Your task to perform on an android device: clear all cookies in the chrome app Image 0: 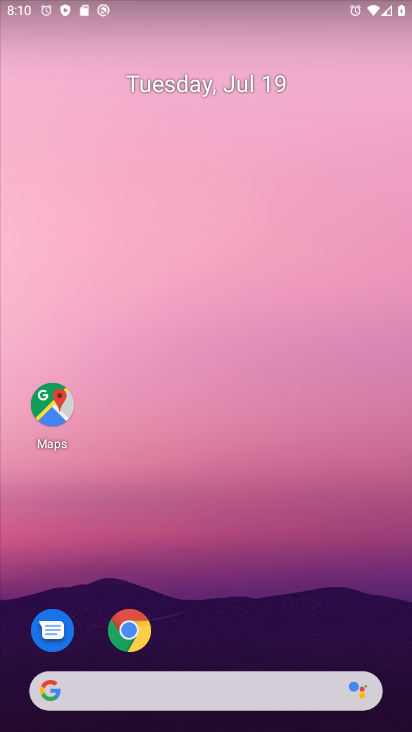
Step 0: click (131, 626)
Your task to perform on an android device: clear all cookies in the chrome app Image 1: 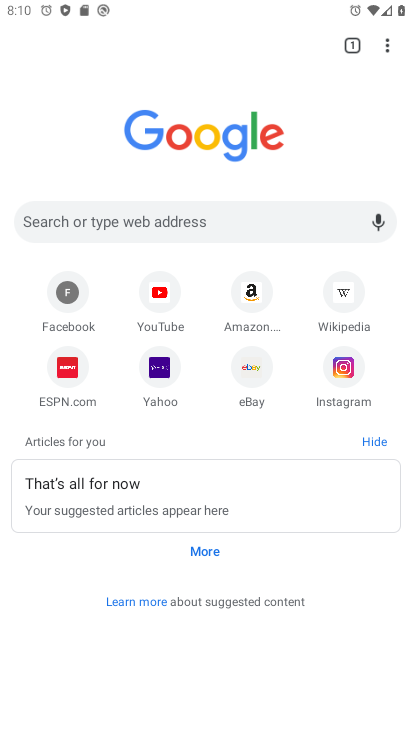
Step 1: click (386, 43)
Your task to perform on an android device: clear all cookies in the chrome app Image 2: 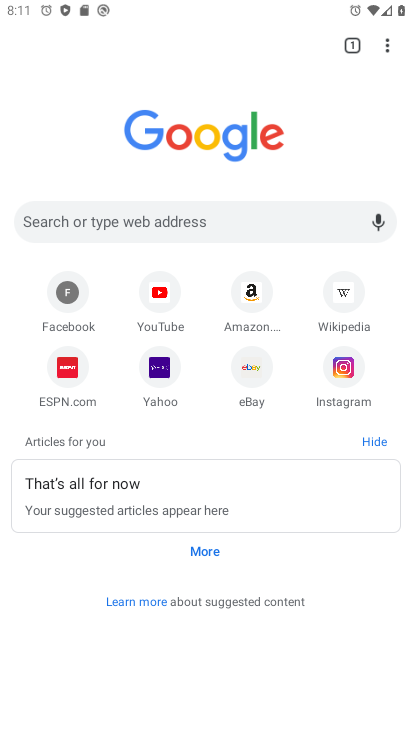
Step 2: click (387, 44)
Your task to perform on an android device: clear all cookies in the chrome app Image 3: 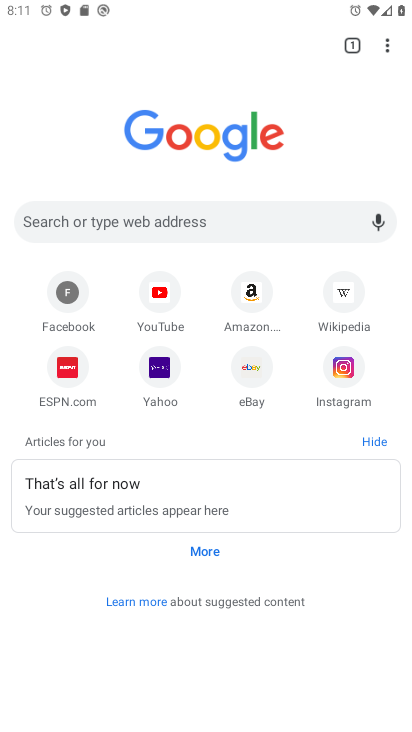
Step 3: click (388, 46)
Your task to perform on an android device: clear all cookies in the chrome app Image 4: 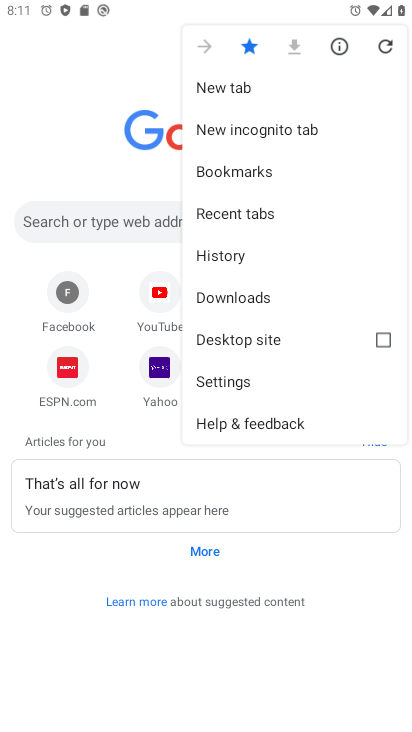
Step 4: click (234, 382)
Your task to perform on an android device: clear all cookies in the chrome app Image 5: 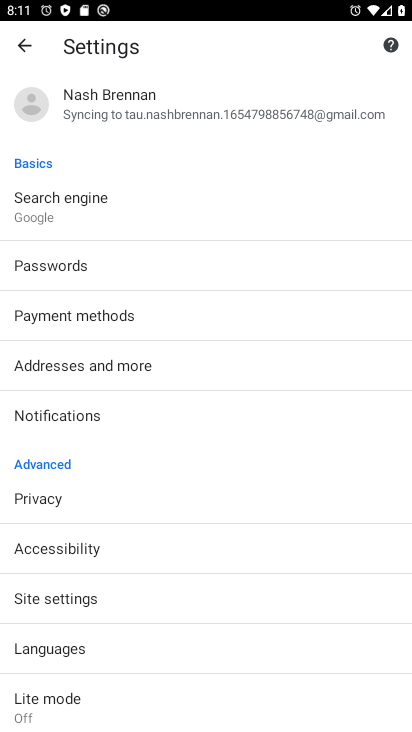
Step 5: click (72, 596)
Your task to perform on an android device: clear all cookies in the chrome app Image 6: 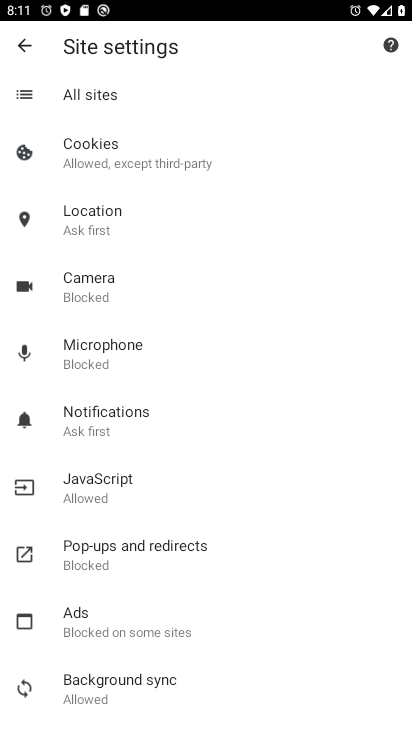
Step 6: click (88, 148)
Your task to perform on an android device: clear all cookies in the chrome app Image 7: 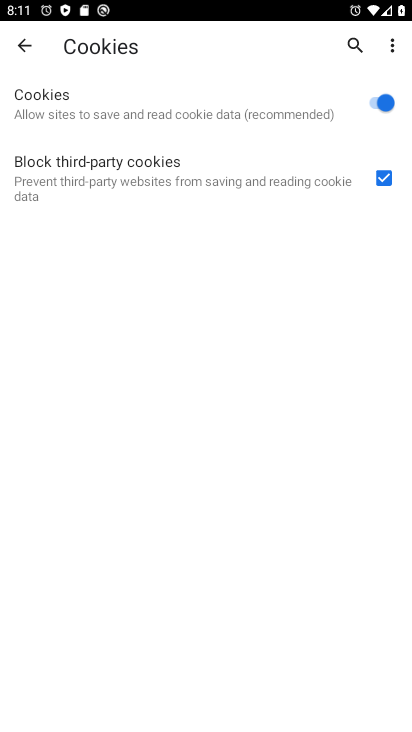
Step 7: task complete